Your task to perform on an android device: change the clock display to show seconds Image 0: 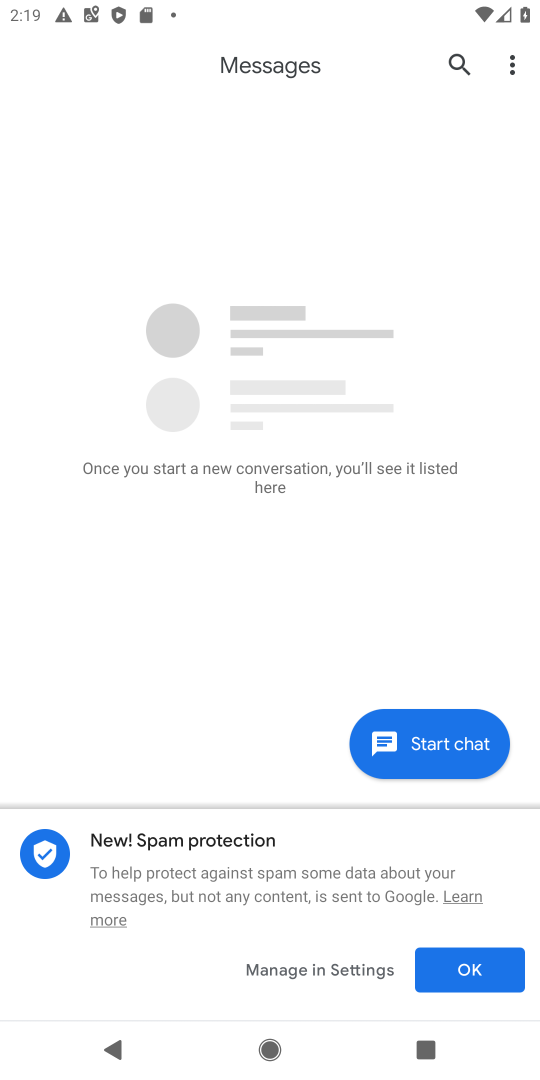
Step 0: press back button
Your task to perform on an android device: change the clock display to show seconds Image 1: 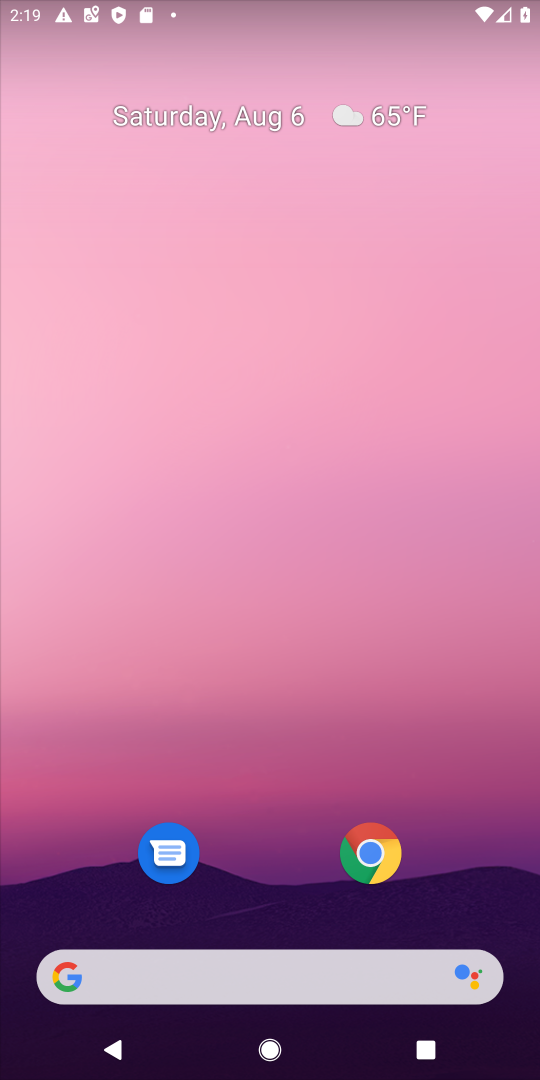
Step 1: drag from (282, 752) to (158, 61)
Your task to perform on an android device: change the clock display to show seconds Image 2: 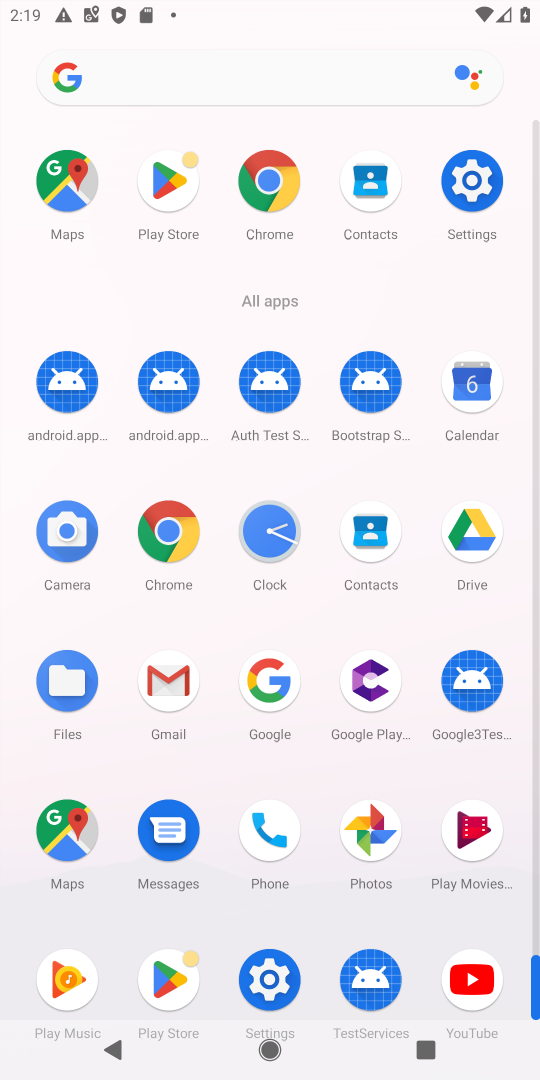
Step 2: click (270, 539)
Your task to perform on an android device: change the clock display to show seconds Image 3: 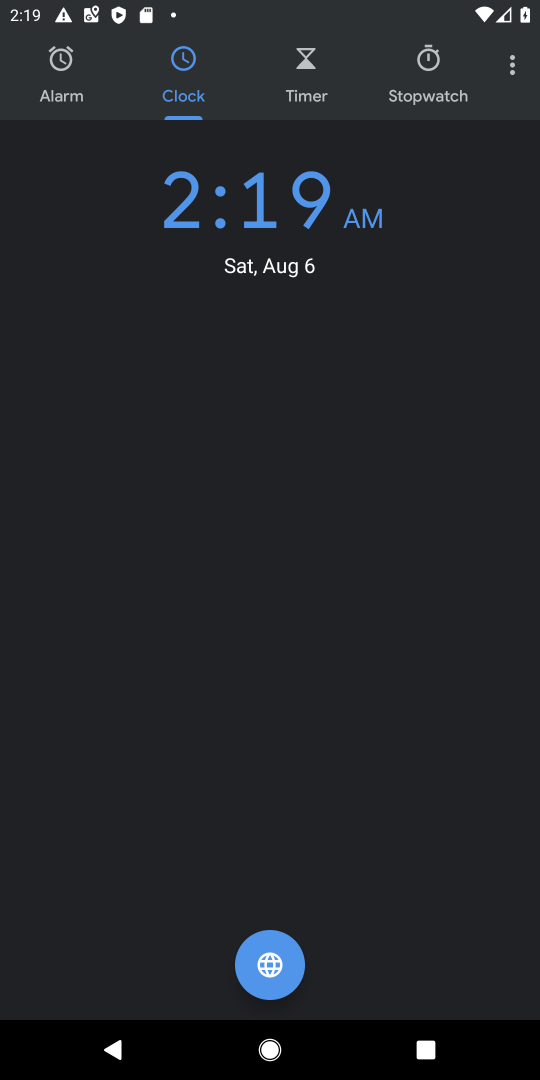
Step 3: click (504, 69)
Your task to perform on an android device: change the clock display to show seconds Image 4: 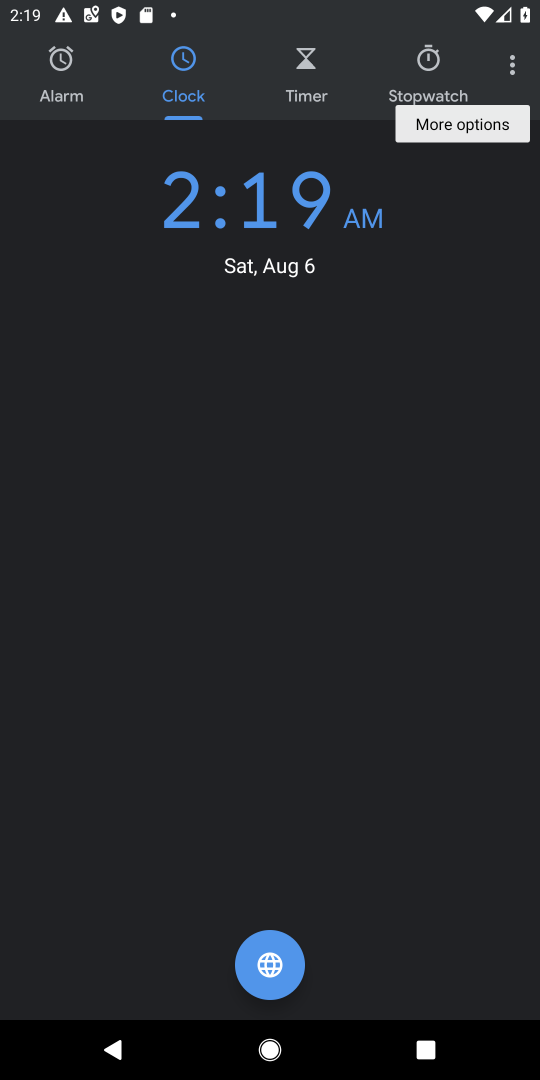
Step 4: click (509, 69)
Your task to perform on an android device: change the clock display to show seconds Image 5: 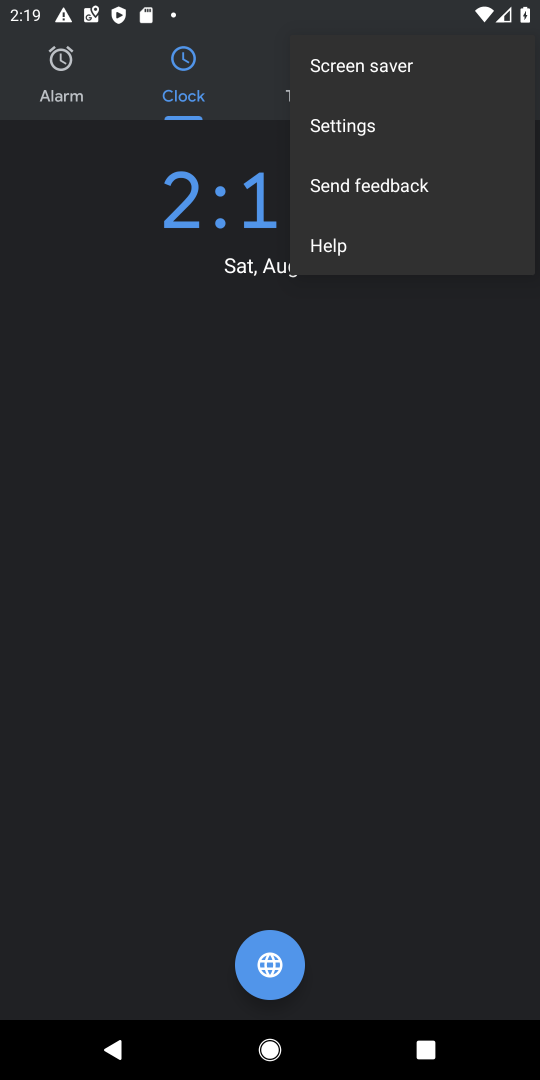
Step 5: click (399, 116)
Your task to perform on an android device: change the clock display to show seconds Image 6: 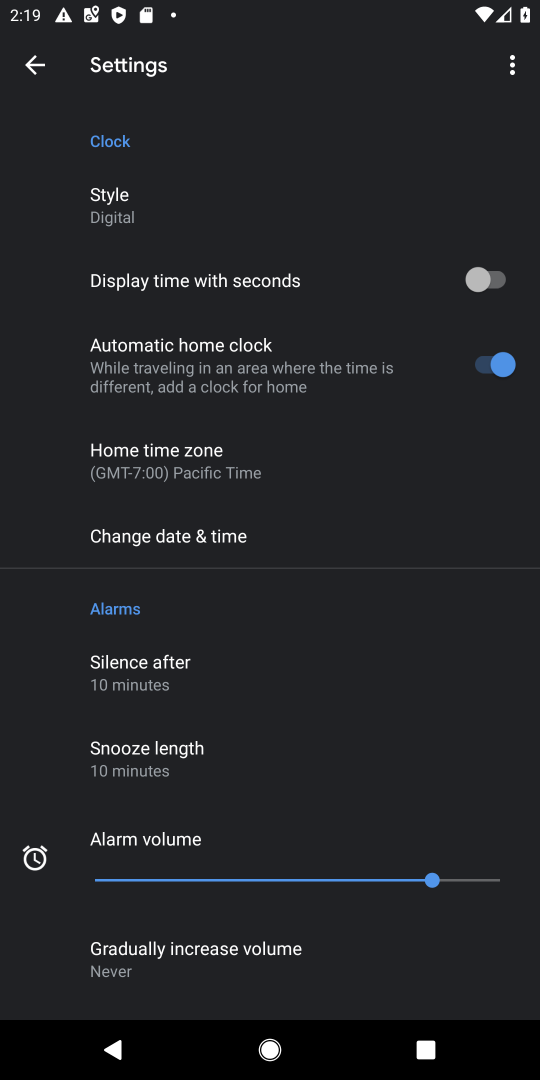
Step 6: click (473, 276)
Your task to perform on an android device: change the clock display to show seconds Image 7: 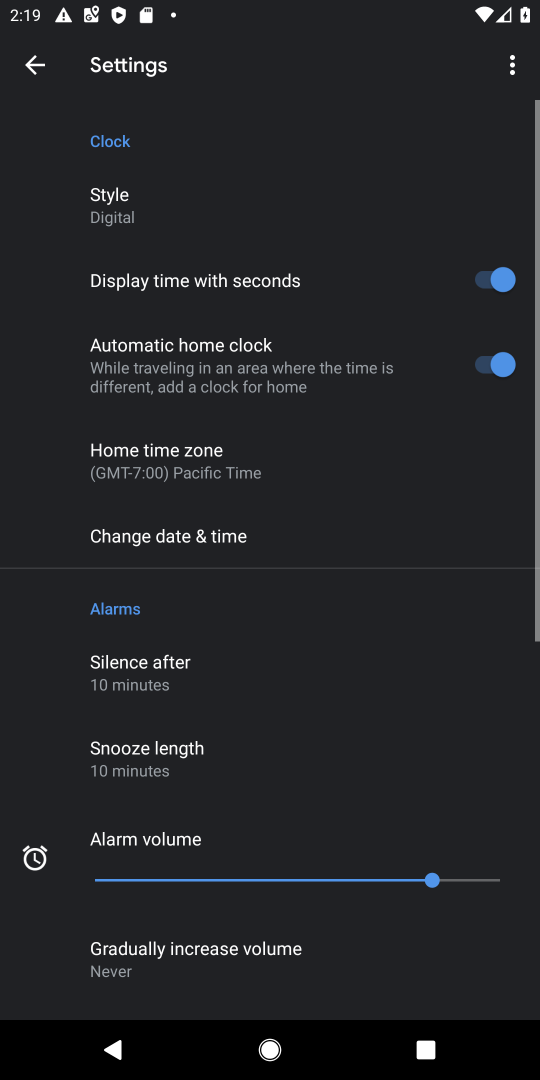
Step 7: task complete